Your task to perform on an android device: Add "jbl charge 4" to the cart on bestbuy.com Image 0: 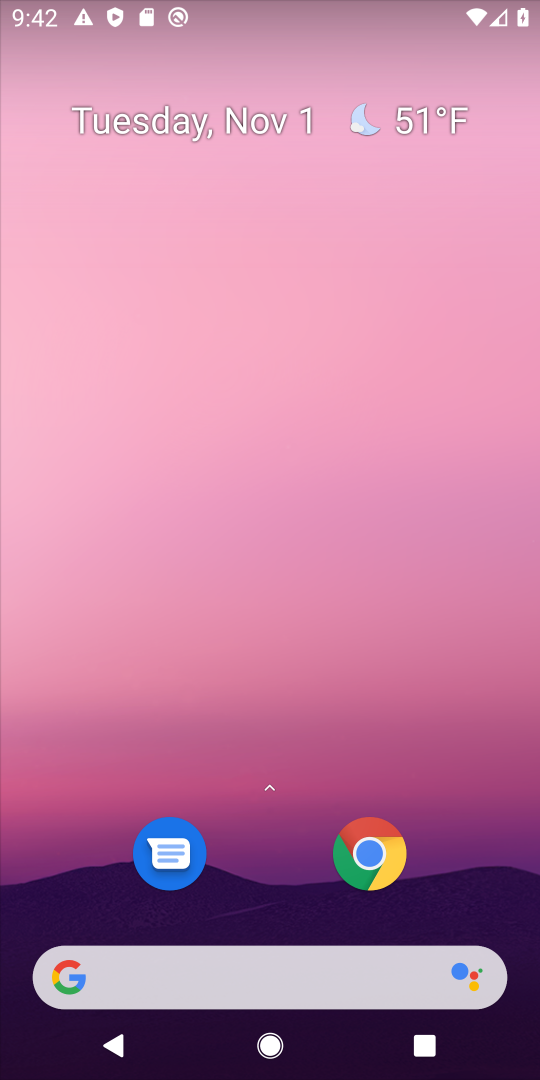
Step 0: click (216, 990)
Your task to perform on an android device: Add "jbl charge 4" to the cart on bestbuy.com Image 1: 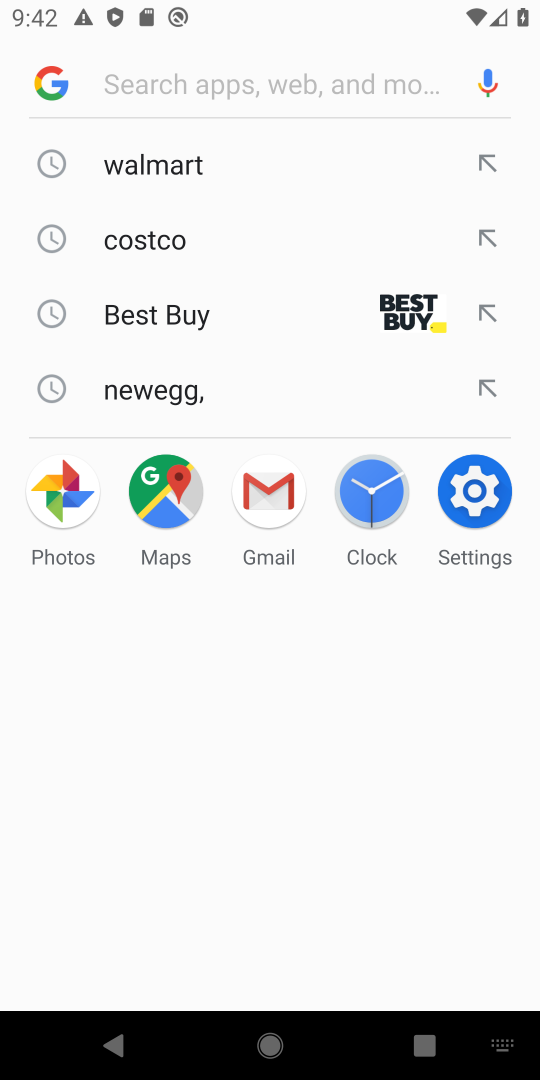
Step 1: click (203, 308)
Your task to perform on an android device: Add "jbl charge 4" to the cart on bestbuy.com Image 2: 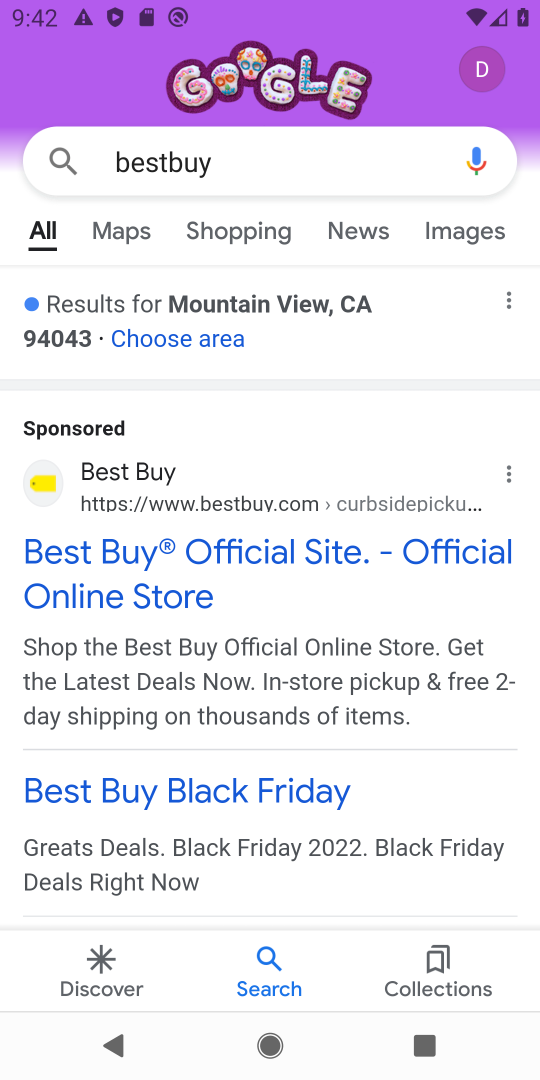
Step 2: click (185, 552)
Your task to perform on an android device: Add "jbl charge 4" to the cart on bestbuy.com Image 3: 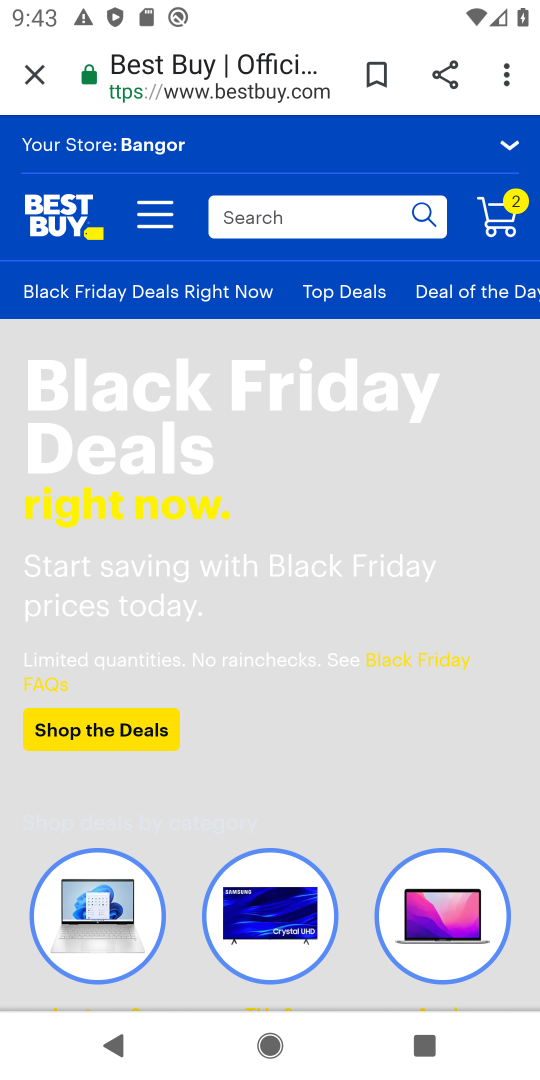
Step 3: click (273, 228)
Your task to perform on an android device: Add "jbl charge 4" to the cart on bestbuy.com Image 4: 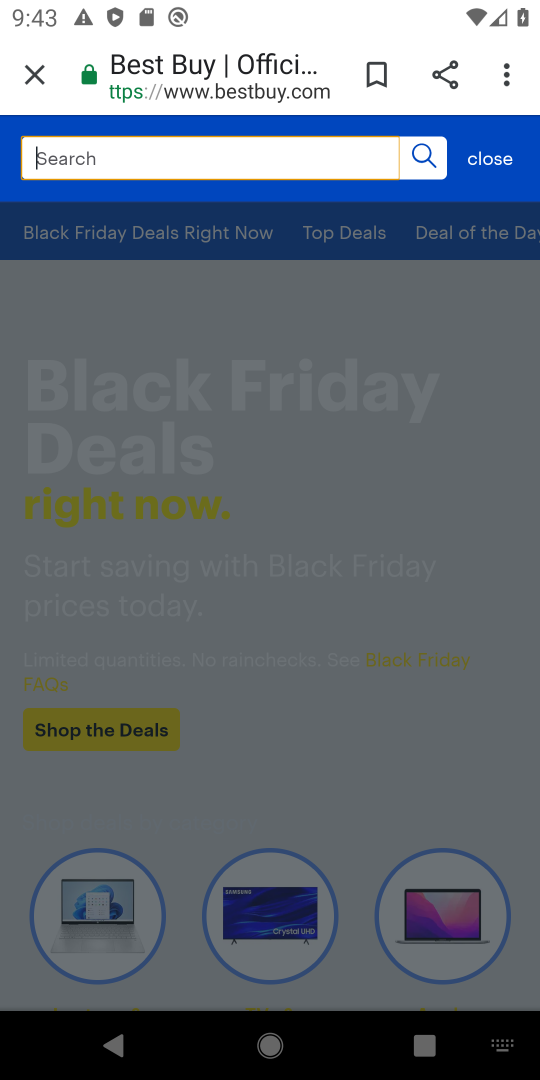
Step 4: type "jbl charger"
Your task to perform on an android device: Add "jbl charge 4" to the cart on bestbuy.com Image 5: 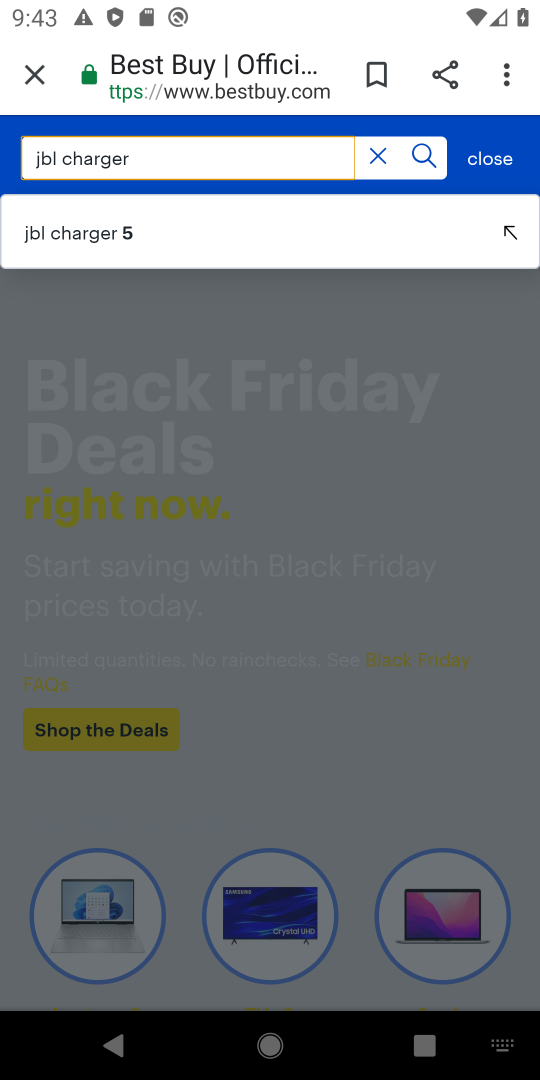
Step 5: type " 4"
Your task to perform on an android device: Add "jbl charge 4" to the cart on bestbuy.com Image 6: 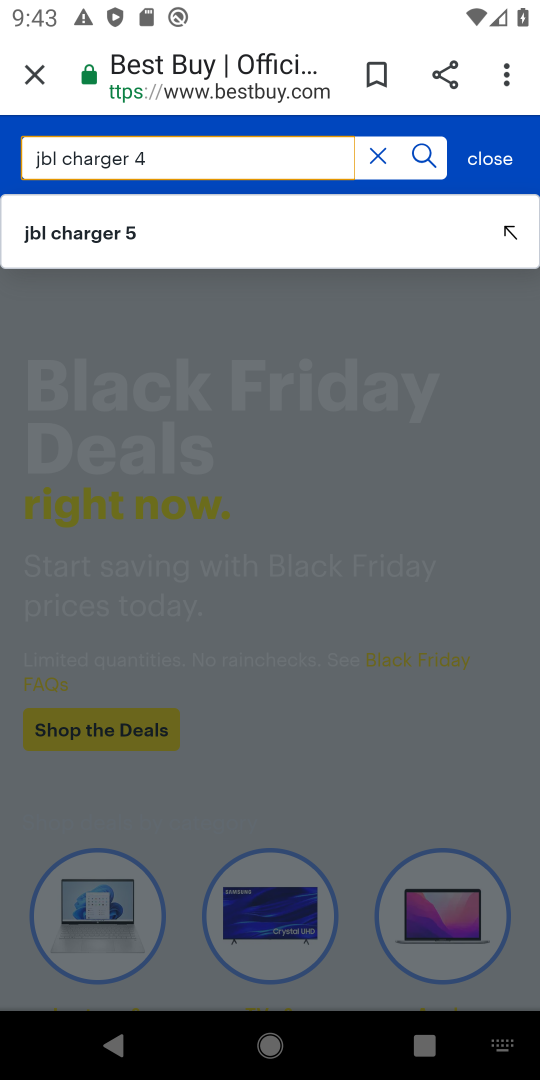
Step 6: click (429, 145)
Your task to perform on an android device: Add "jbl charge 4" to the cart on bestbuy.com Image 7: 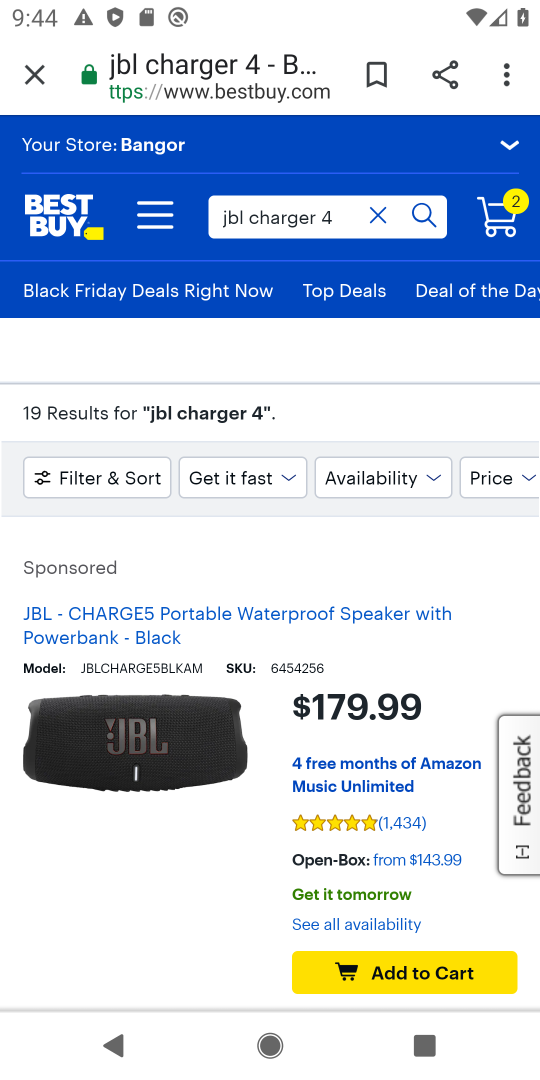
Step 7: click (328, 970)
Your task to perform on an android device: Add "jbl charge 4" to the cart on bestbuy.com Image 8: 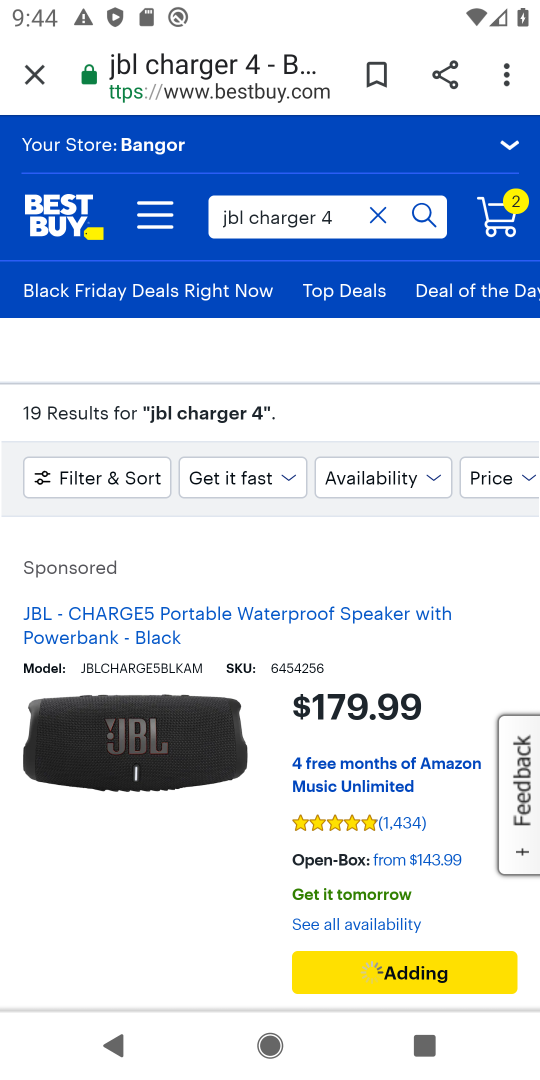
Step 8: task complete